Your task to perform on an android device: Go to Google maps Image 0: 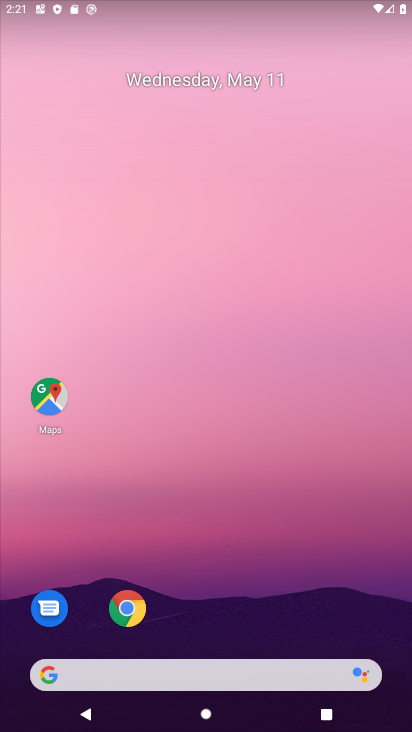
Step 0: click (54, 398)
Your task to perform on an android device: Go to Google maps Image 1: 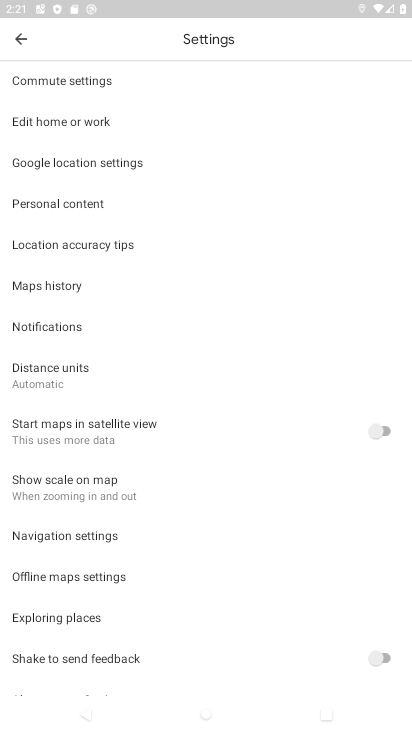
Step 1: task complete